Your task to perform on an android device: Go to Google Image 0: 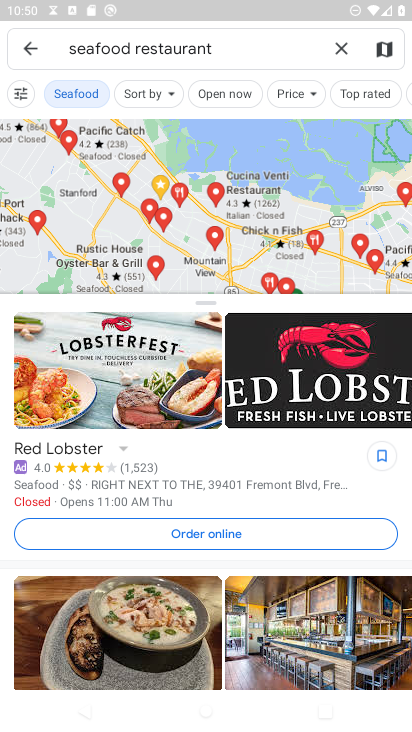
Step 0: task complete